Your task to perform on an android device: open app "Booking.com: Hotels and more" Image 0: 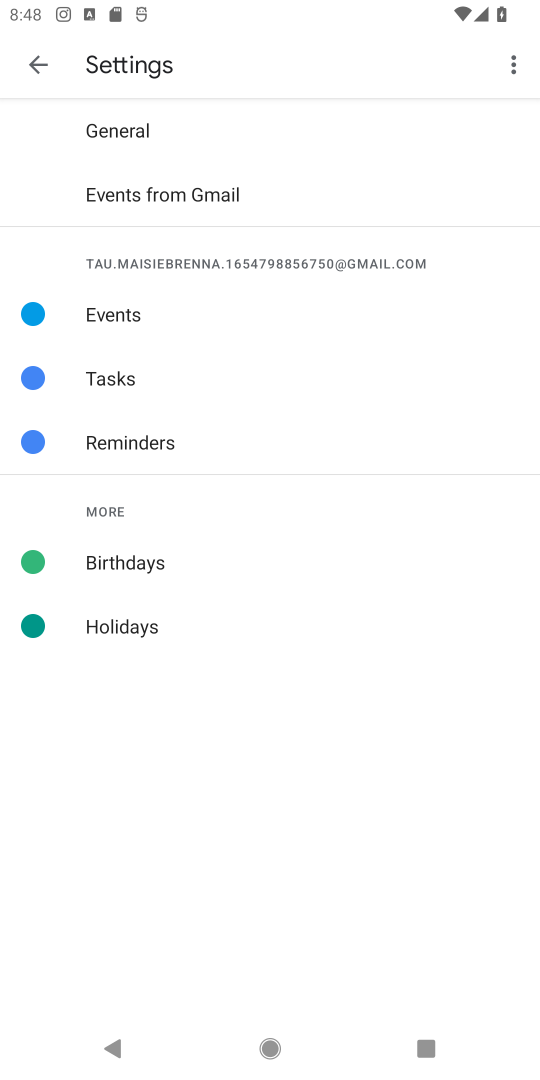
Step 0: press home button
Your task to perform on an android device: open app "Booking.com: Hotels and more" Image 1: 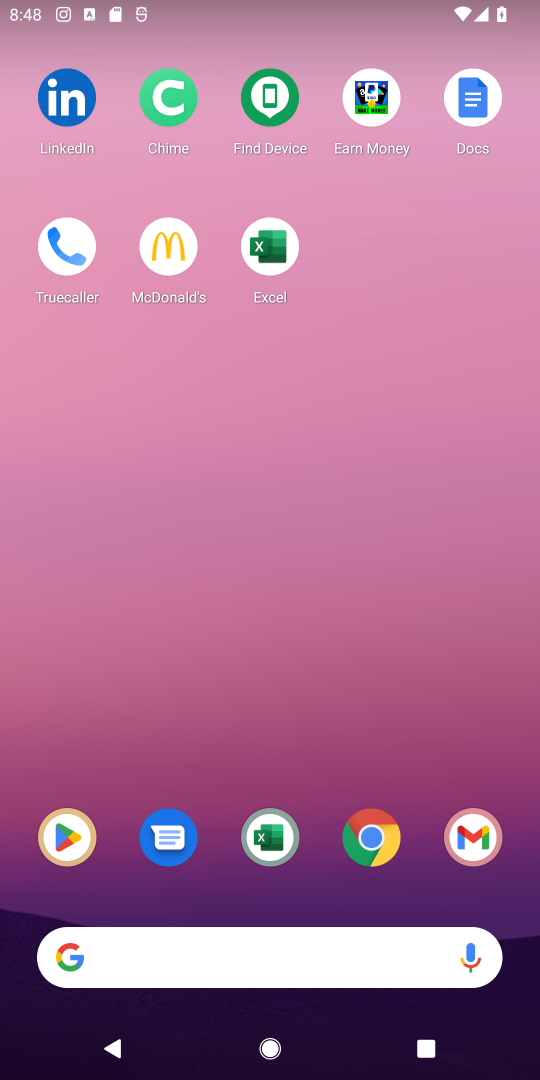
Step 1: click (71, 827)
Your task to perform on an android device: open app "Booking.com: Hotels and more" Image 2: 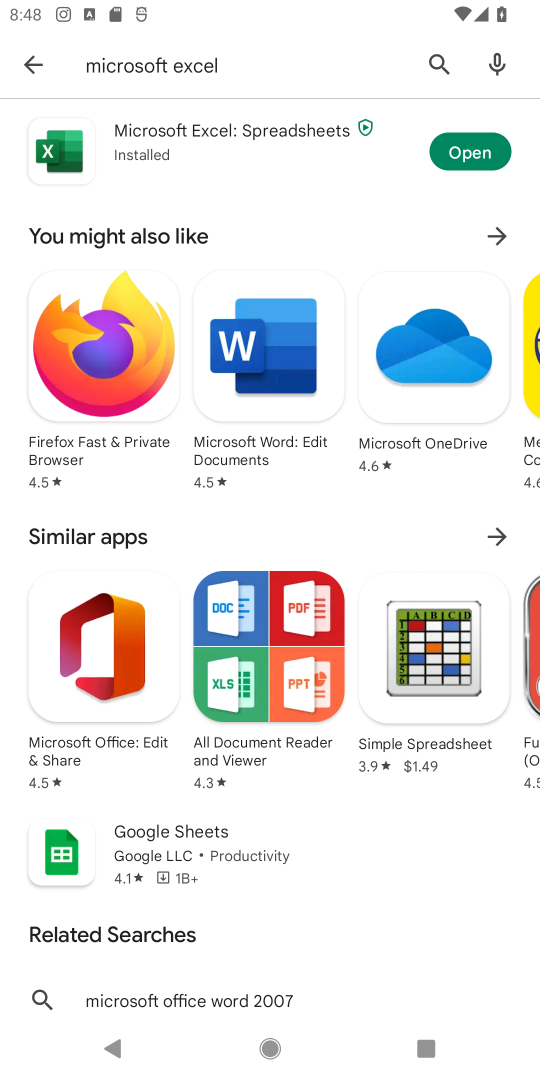
Step 2: click (445, 52)
Your task to perform on an android device: open app "Booking.com: Hotels and more" Image 3: 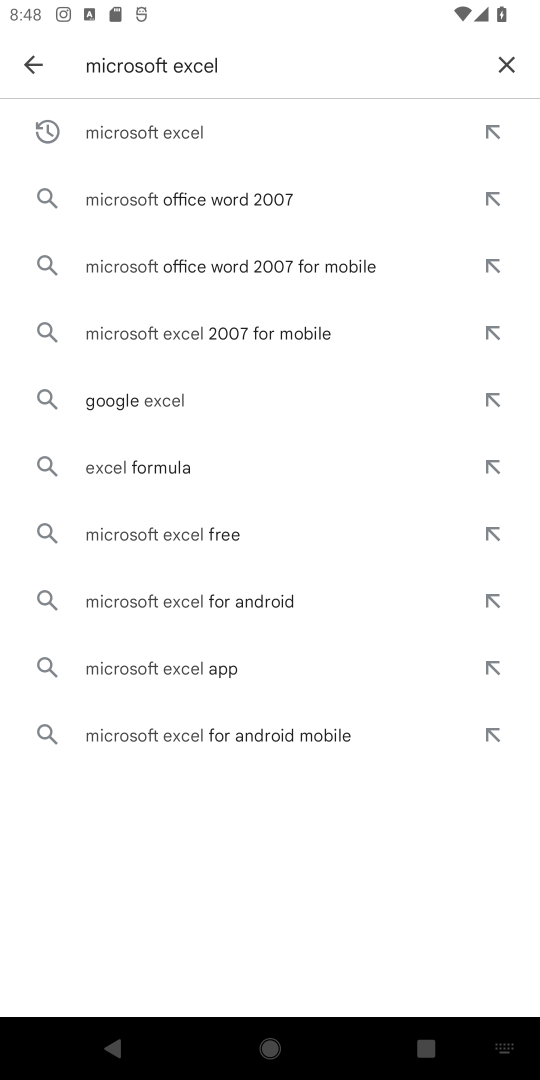
Step 3: click (506, 66)
Your task to perform on an android device: open app "Booking.com: Hotels and more" Image 4: 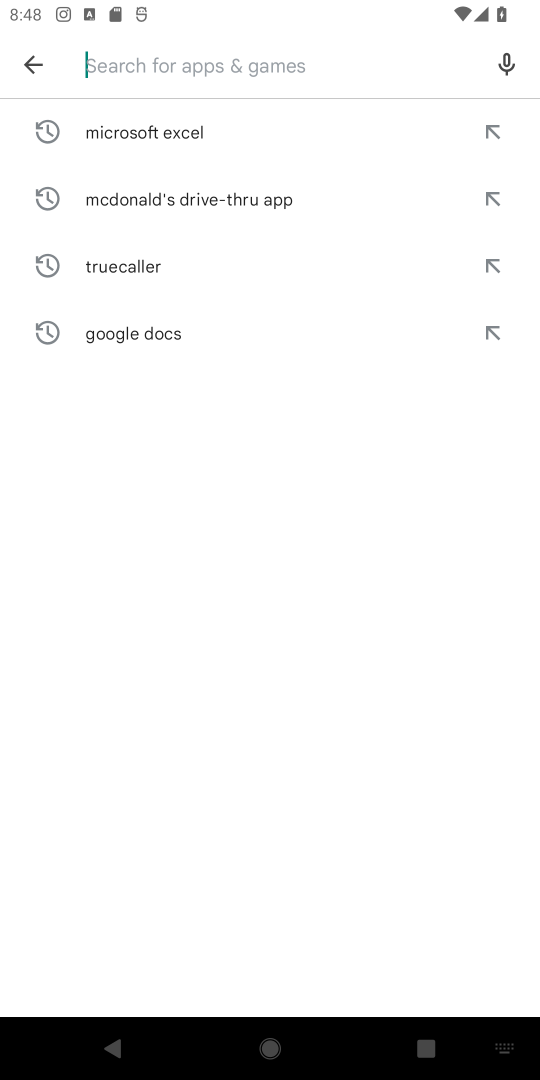
Step 4: type "Booking.com: Hotels and more"
Your task to perform on an android device: open app "Booking.com: Hotels and more" Image 5: 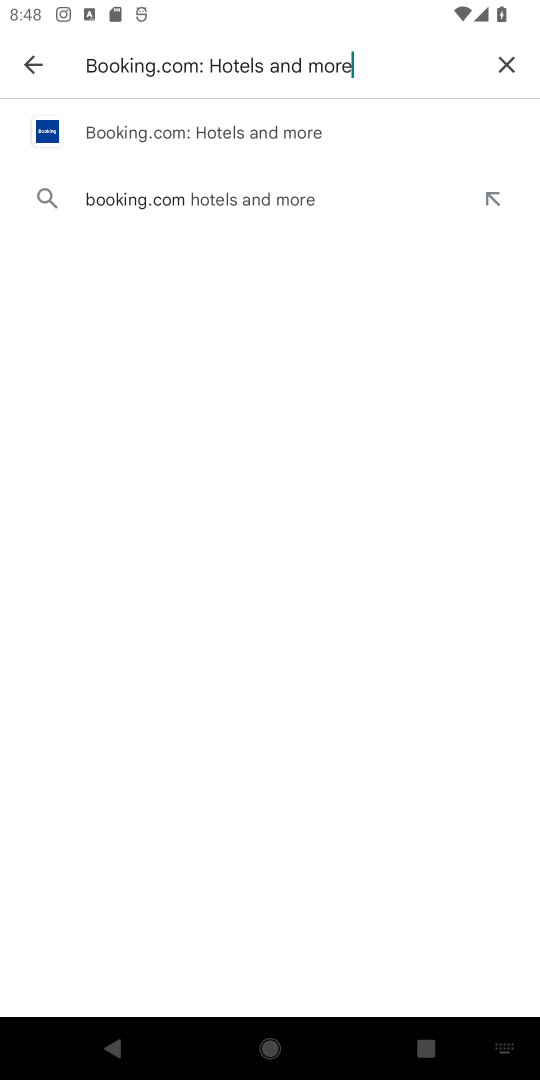
Step 5: click (180, 135)
Your task to perform on an android device: open app "Booking.com: Hotels and more" Image 6: 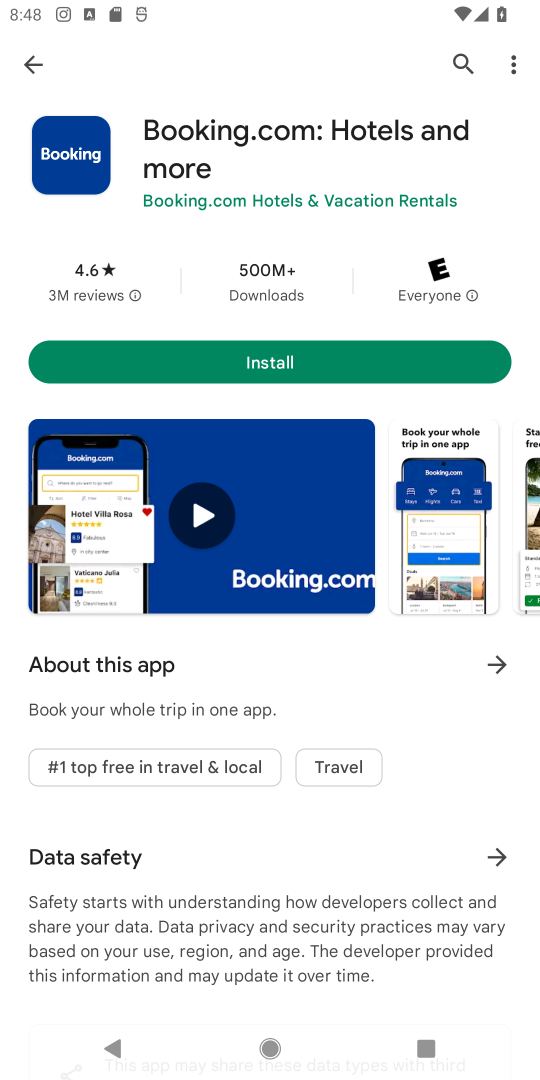
Step 6: task complete